Your task to perform on an android device: turn on javascript in the chrome app Image 0: 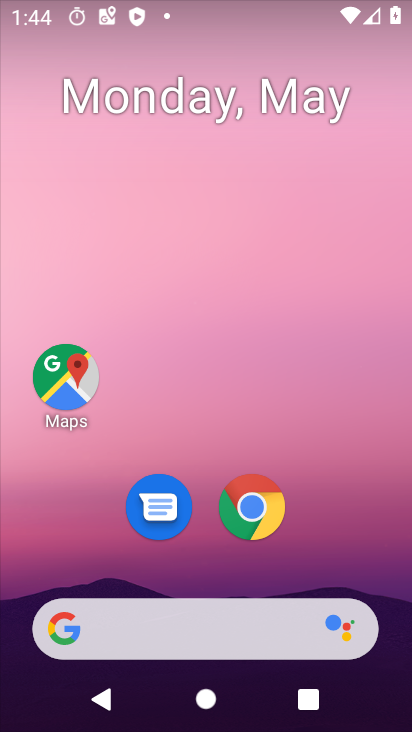
Step 0: drag from (355, 571) to (273, 43)
Your task to perform on an android device: turn on javascript in the chrome app Image 1: 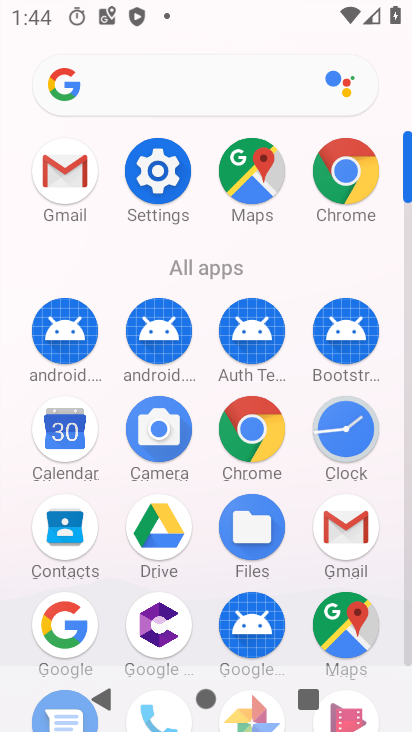
Step 1: click (276, 452)
Your task to perform on an android device: turn on javascript in the chrome app Image 2: 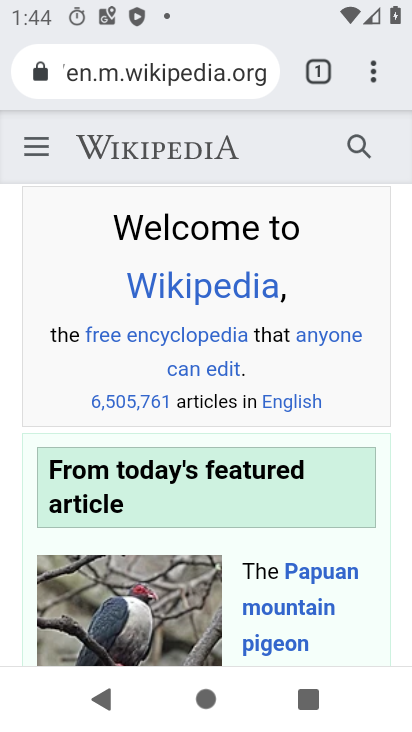
Step 2: drag from (368, 82) to (188, 499)
Your task to perform on an android device: turn on javascript in the chrome app Image 3: 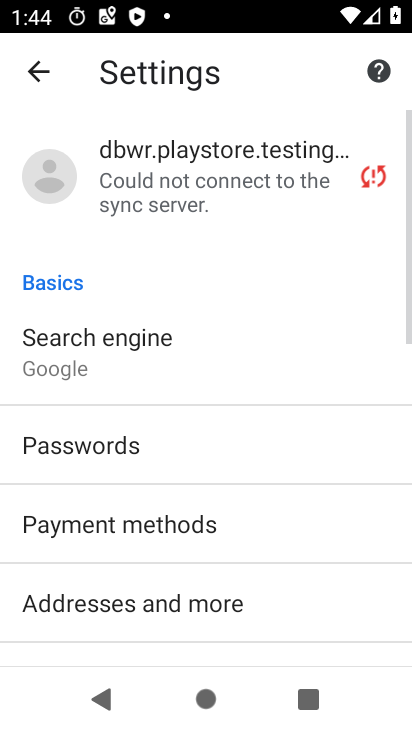
Step 3: drag from (274, 621) to (251, 215)
Your task to perform on an android device: turn on javascript in the chrome app Image 4: 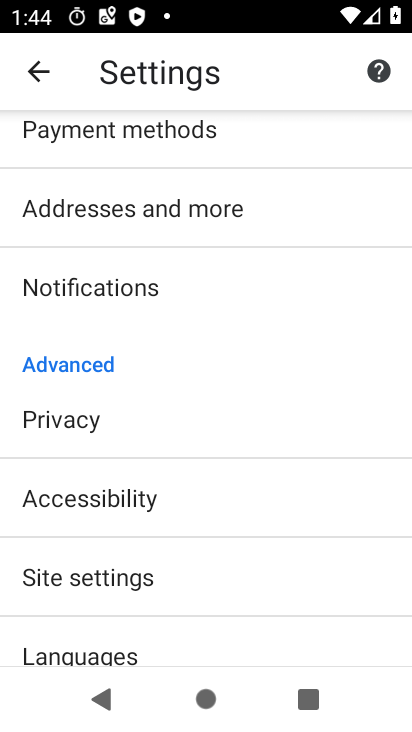
Step 4: drag from (309, 595) to (297, 236)
Your task to perform on an android device: turn on javascript in the chrome app Image 5: 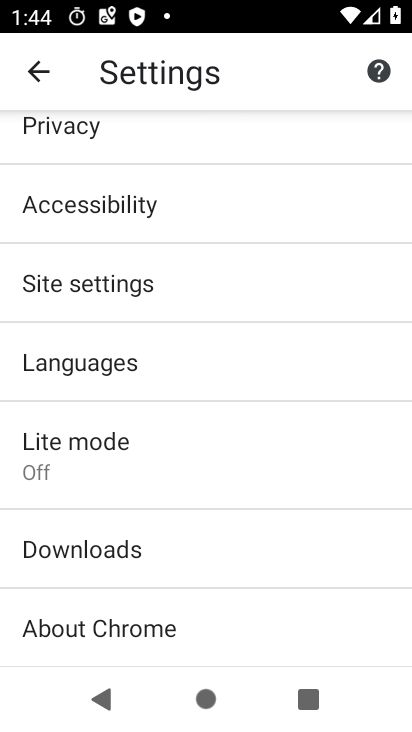
Step 5: click (139, 295)
Your task to perform on an android device: turn on javascript in the chrome app Image 6: 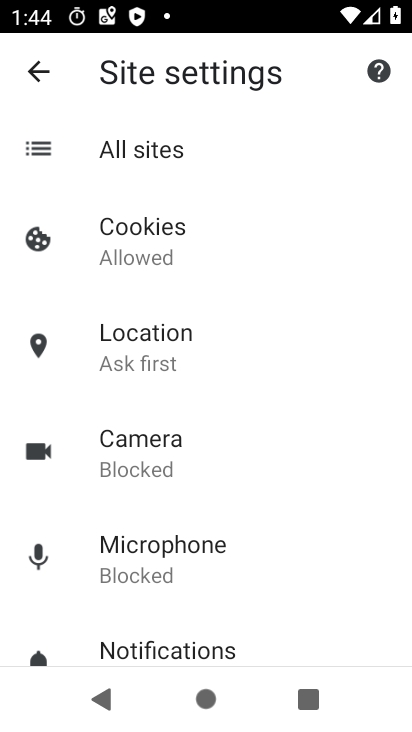
Step 6: drag from (265, 594) to (260, 293)
Your task to perform on an android device: turn on javascript in the chrome app Image 7: 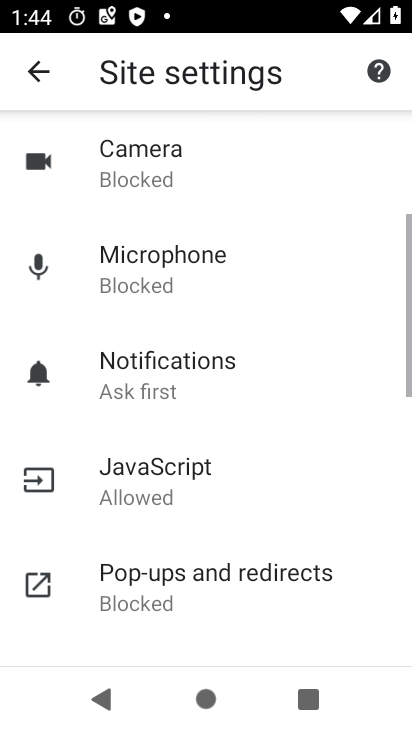
Step 7: click (202, 483)
Your task to perform on an android device: turn on javascript in the chrome app Image 8: 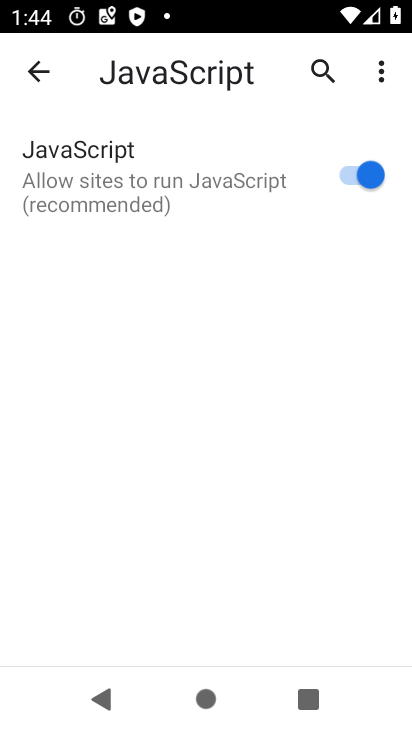
Step 8: task complete